Your task to perform on an android device: open app "Messages" Image 0: 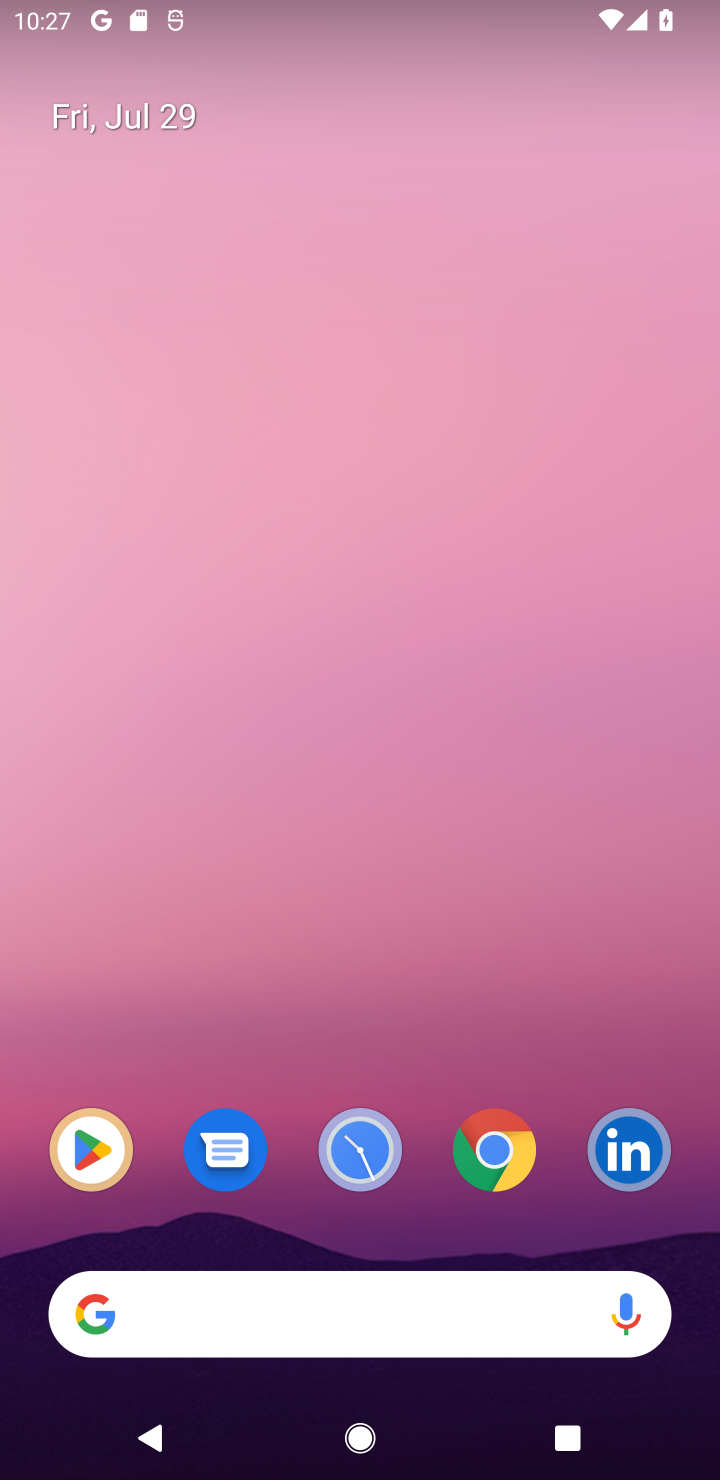
Step 0: click (247, 1133)
Your task to perform on an android device: open app "Messages" Image 1: 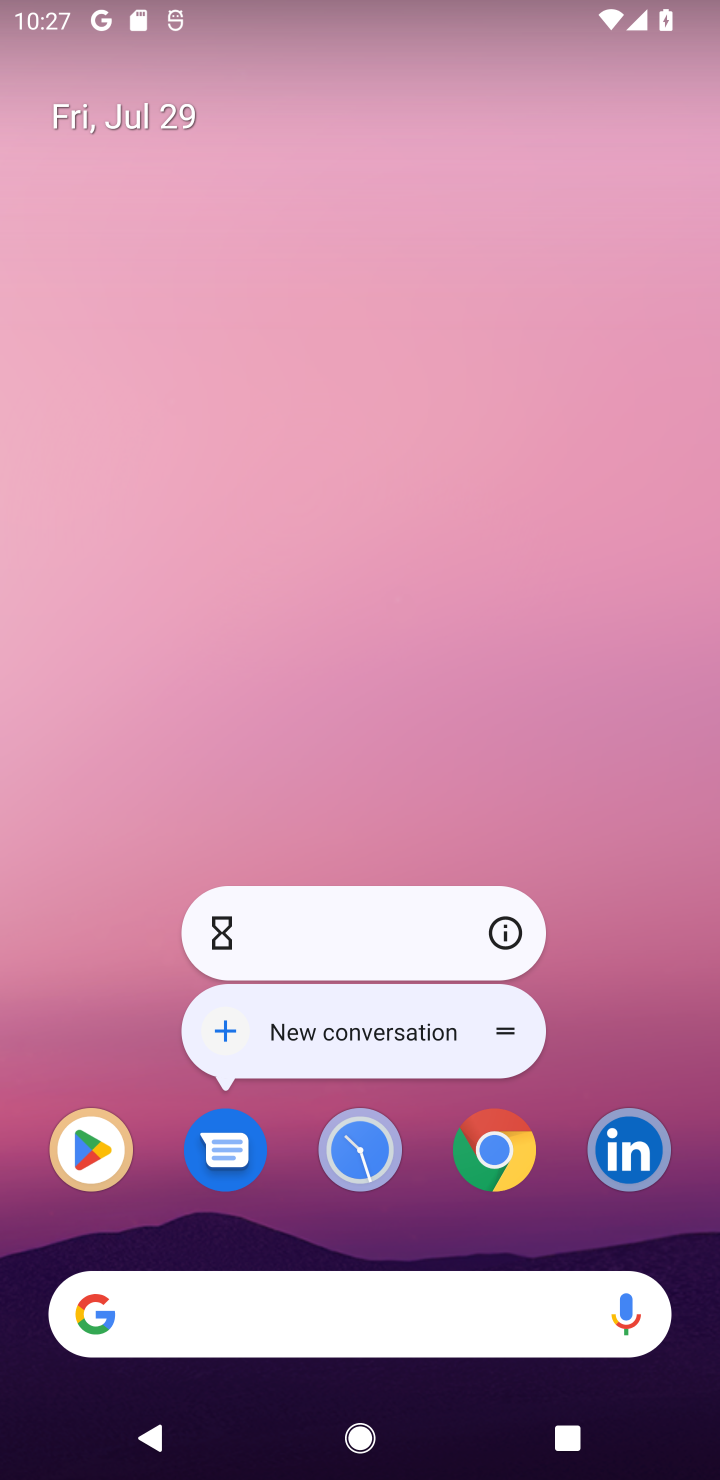
Step 1: click (213, 1151)
Your task to perform on an android device: open app "Messages" Image 2: 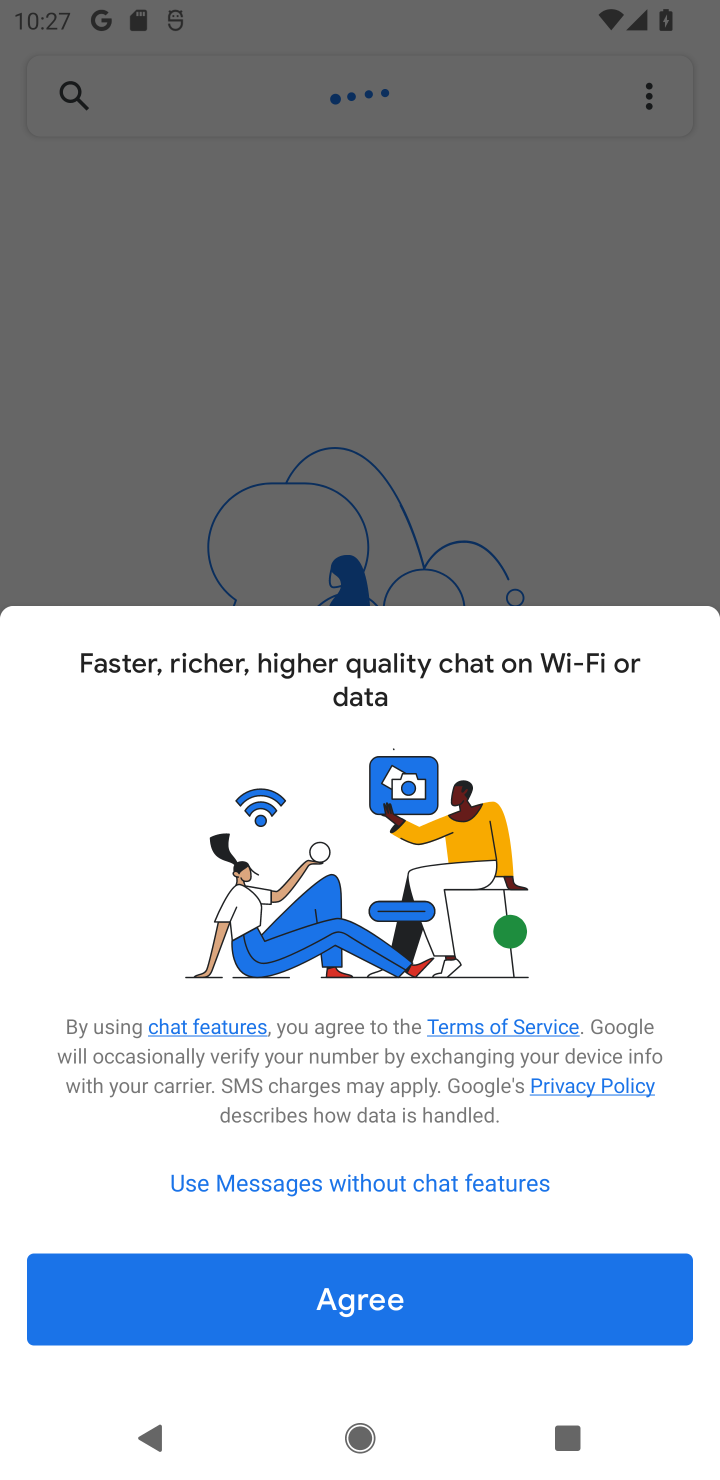
Step 2: task complete